Your task to perform on an android device: Search for bose quietcomfort 35 on costco.com, select the first entry, and add it to the cart. Image 0: 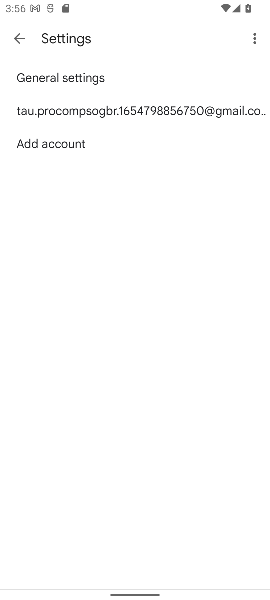
Step 0: press home button
Your task to perform on an android device: Search for bose quietcomfort 35 on costco.com, select the first entry, and add it to the cart. Image 1: 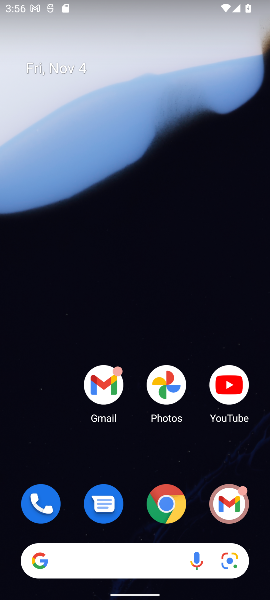
Step 1: click (171, 509)
Your task to perform on an android device: Search for bose quietcomfort 35 on costco.com, select the first entry, and add it to the cart. Image 2: 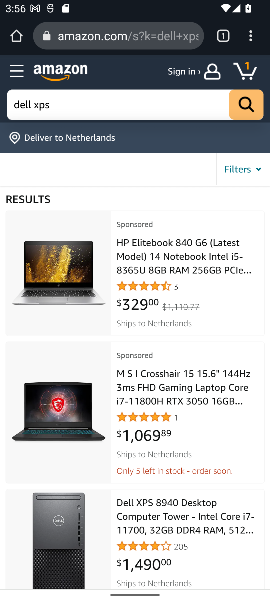
Step 2: click (124, 44)
Your task to perform on an android device: Search for bose quietcomfort 35 on costco.com, select the first entry, and add it to the cart. Image 3: 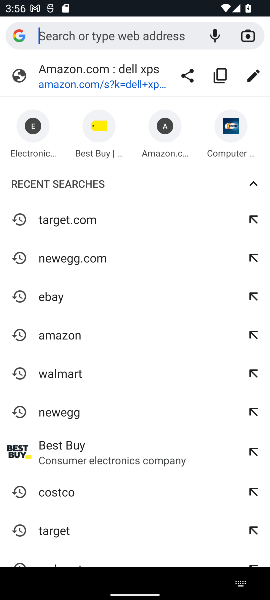
Step 3: click (57, 498)
Your task to perform on an android device: Search for bose quietcomfort 35 on costco.com, select the first entry, and add it to the cart. Image 4: 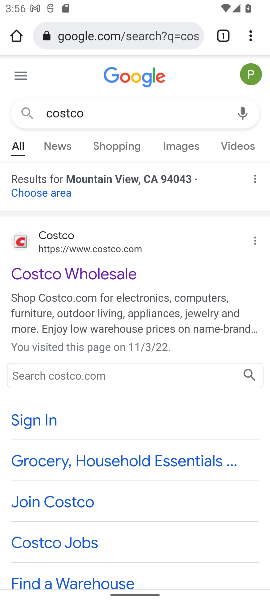
Step 4: click (42, 278)
Your task to perform on an android device: Search for bose quietcomfort 35 on costco.com, select the first entry, and add it to the cart. Image 5: 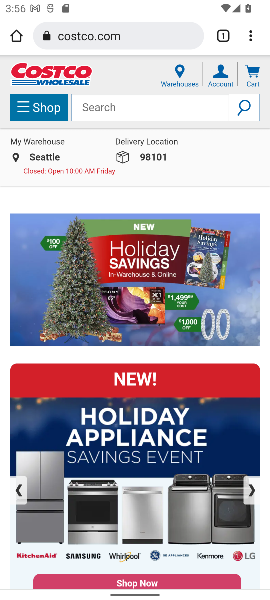
Step 5: click (100, 104)
Your task to perform on an android device: Search for bose quietcomfort 35 on costco.com, select the first entry, and add it to the cart. Image 6: 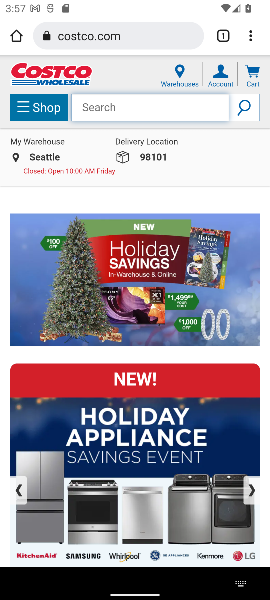
Step 6: type "bose quietcomfort 35"
Your task to perform on an android device: Search for bose quietcomfort 35 on costco.com, select the first entry, and add it to the cart. Image 7: 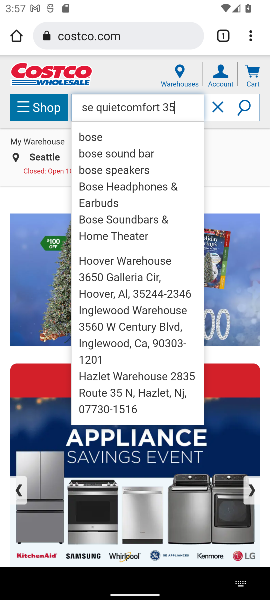
Step 7: click (245, 112)
Your task to perform on an android device: Search for bose quietcomfort 35 on costco.com, select the first entry, and add it to the cart. Image 8: 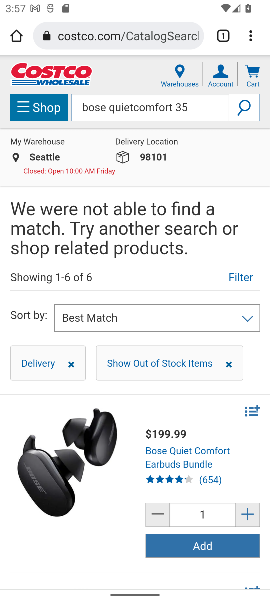
Step 8: task complete